Your task to perform on an android device: search for starred emails in the gmail app Image 0: 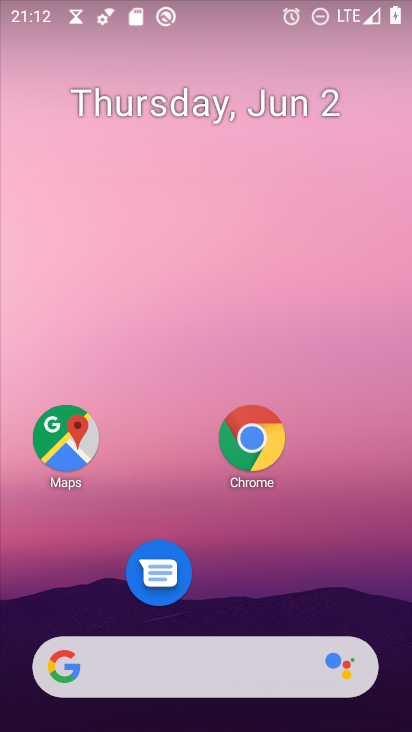
Step 0: press home button
Your task to perform on an android device: search for starred emails in the gmail app Image 1: 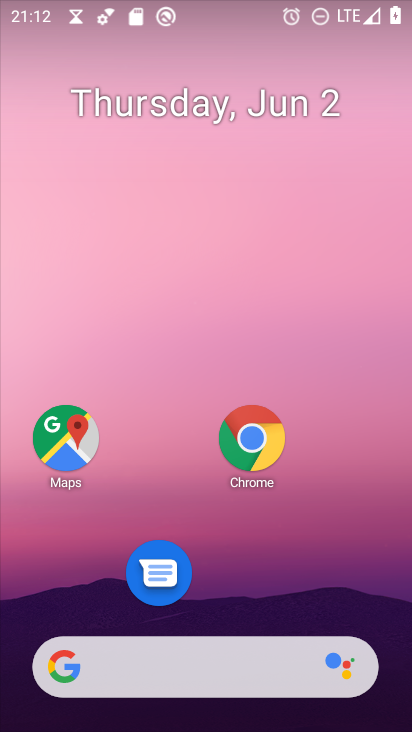
Step 1: drag from (171, 675) to (329, 137)
Your task to perform on an android device: search for starred emails in the gmail app Image 2: 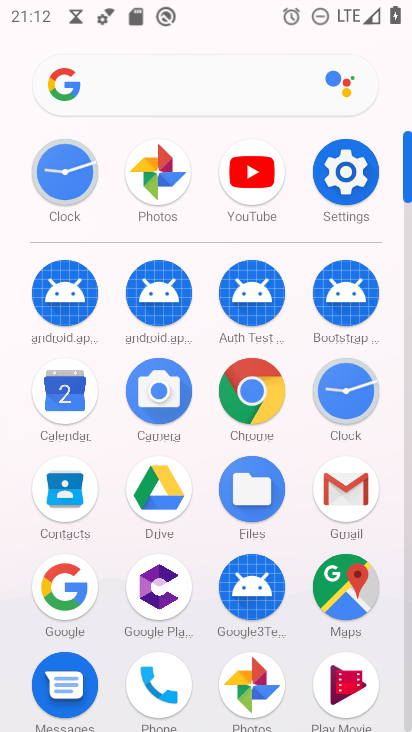
Step 2: click (341, 489)
Your task to perform on an android device: search for starred emails in the gmail app Image 3: 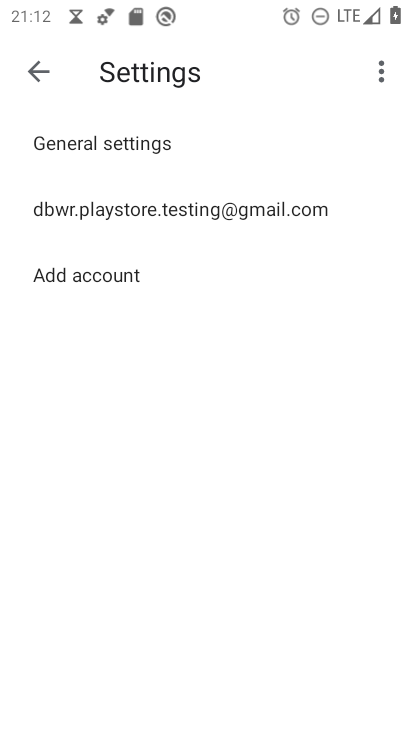
Step 3: click (43, 71)
Your task to perform on an android device: search for starred emails in the gmail app Image 4: 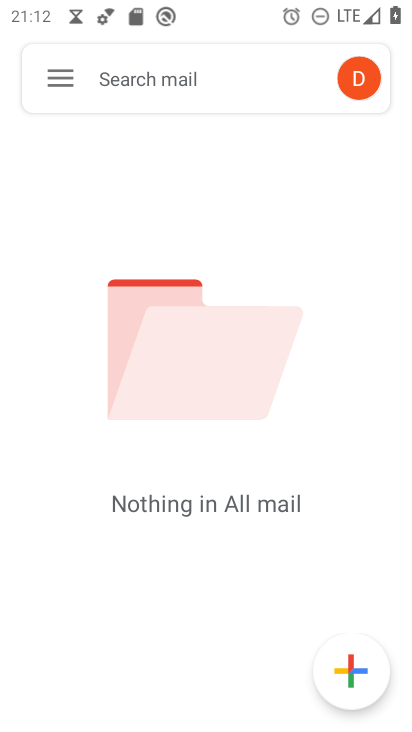
Step 4: click (64, 74)
Your task to perform on an android device: search for starred emails in the gmail app Image 5: 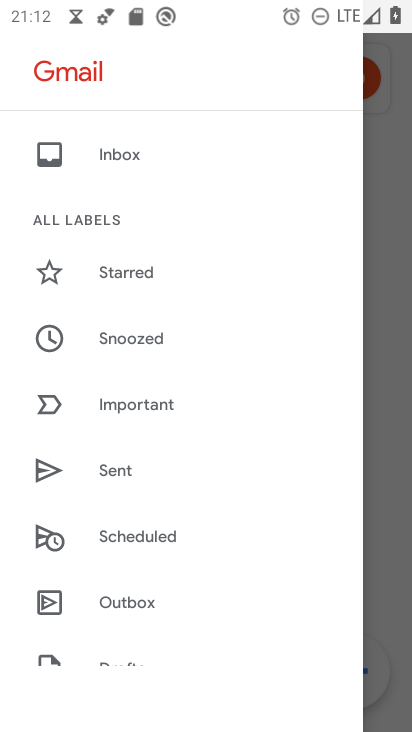
Step 5: click (129, 270)
Your task to perform on an android device: search for starred emails in the gmail app Image 6: 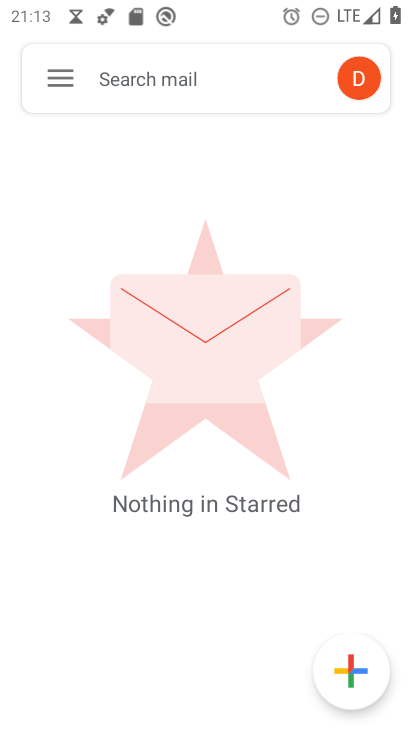
Step 6: task complete